Your task to perform on an android device: Play the last video I watched on Youtube Image 0: 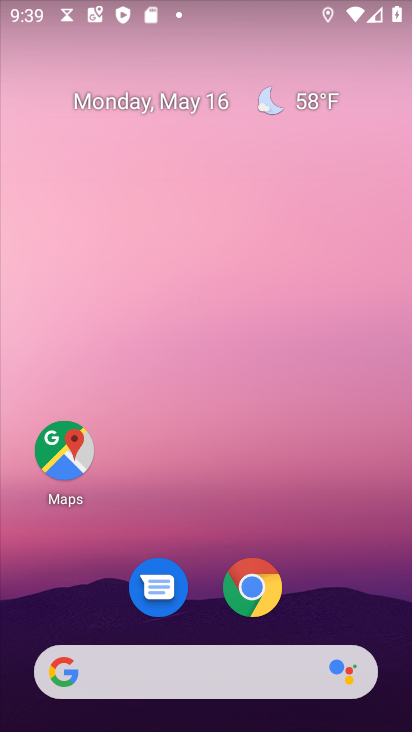
Step 0: drag from (351, 606) to (246, 219)
Your task to perform on an android device: Play the last video I watched on Youtube Image 1: 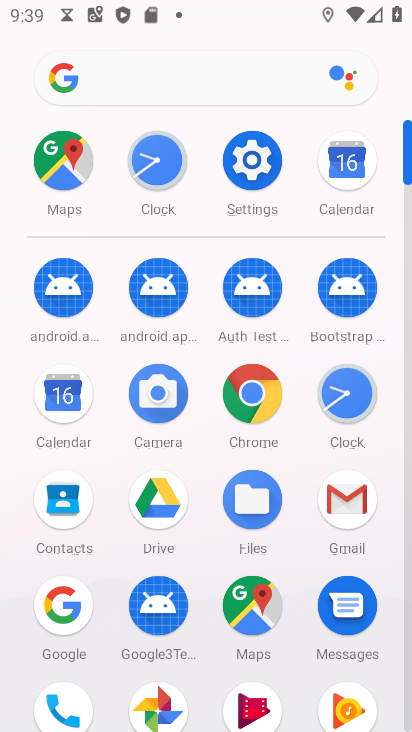
Step 1: click (407, 694)
Your task to perform on an android device: Play the last video I watched on Youtube Image 2: 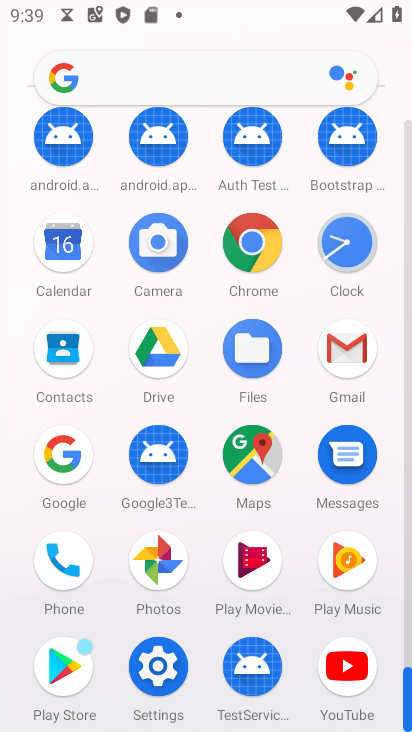
Step 2: click (360, 681)
Your task to perform on an android device: Play the last video I watched on Youtube Image 3: 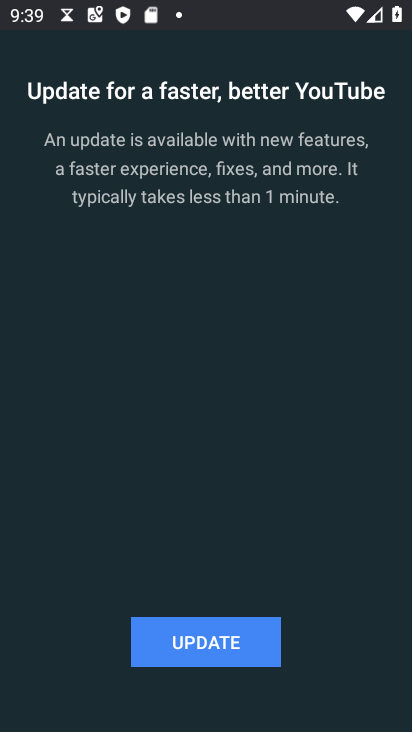
Step 3: click (259, 661)
Your task to perform on an android device: Play the last video I watched on Youtube Image 4: 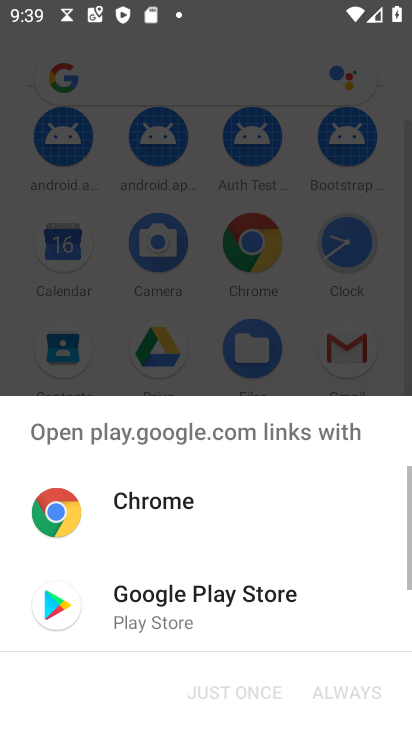
Step 4: click (244, 628)
Your task to perform on an android device: Play the last video I watched on Youtube Image 5: 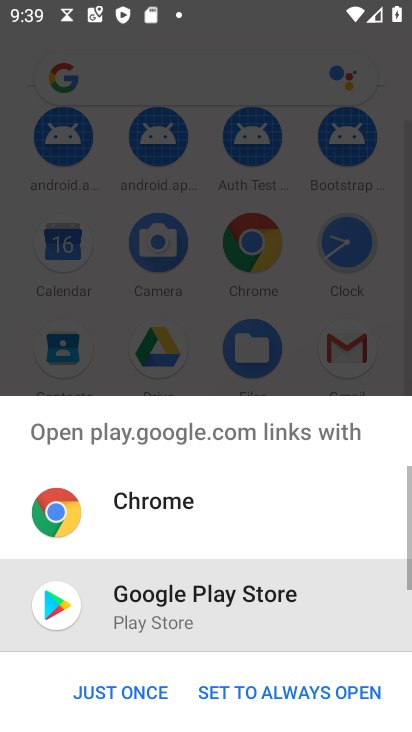
Step 5: click (130, 706)
Your task to perform on an android device: Play the last video I watched on Youtube Image 6: 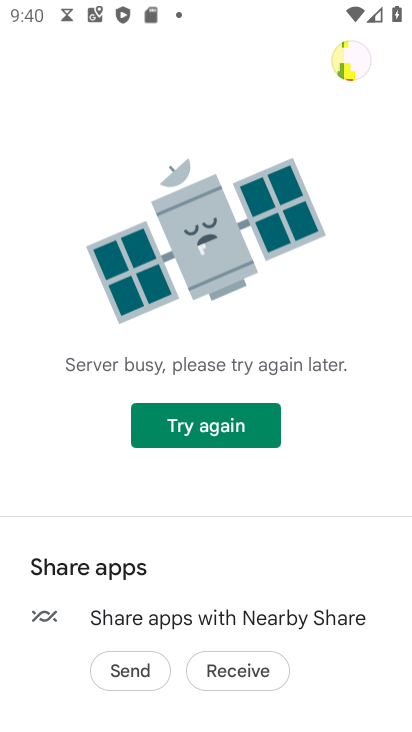
Step 6: task complete